Your task to perform on an android device: Add "corsair k70" to the cart on ebay.com, then select checkout. Image 0: 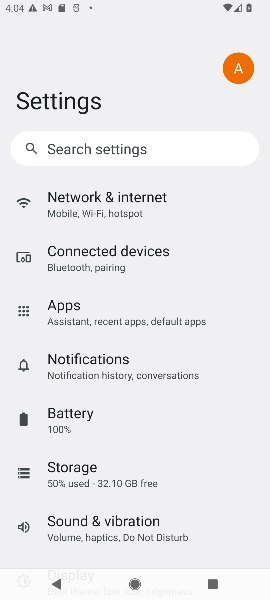
Step 0: press home button
Your task to perform on an android device: Add "corsair k70" to the cart on ebay.com, then select checkout. Image 1: 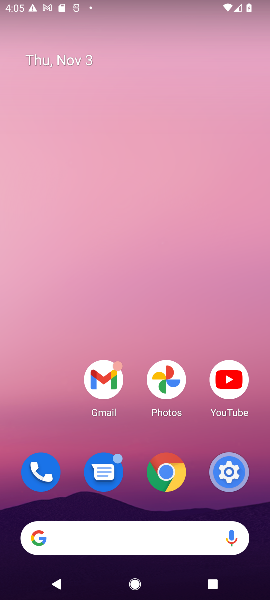
Step 1: click (102, 548)
Your task to perform on an android device: Add "corsair k70" to the cart on ebay.com, then select checkout. Image 2: 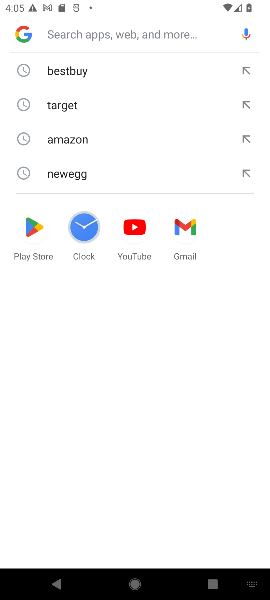
Step 2: type "ebay.com'"
Your task to perform on an android device: Add "corsair k70" to the cart on ebay.com, then select checkout. Image 3: 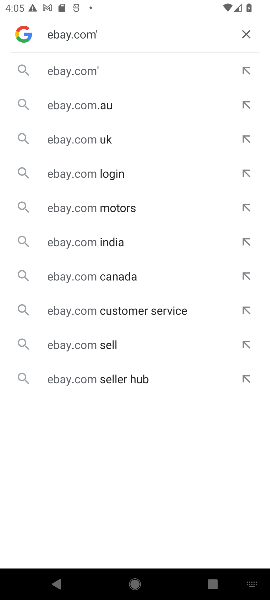
Step 3: click (89, 62)
Your task to perform on an android device: Add "corsair k70" to the cart on ebay.com, then select checkout. Image 4: 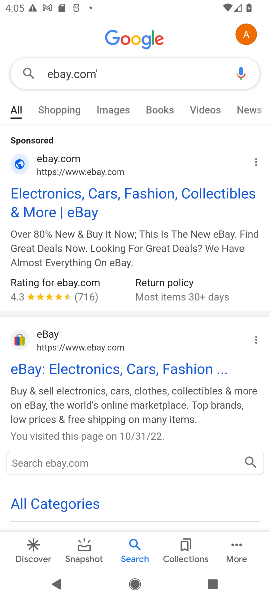
Step 4: click (114, 213)
Your task to perform on an android device: Add "corsair k70" to the cart on ebay.com, then select checkout. Image 5: 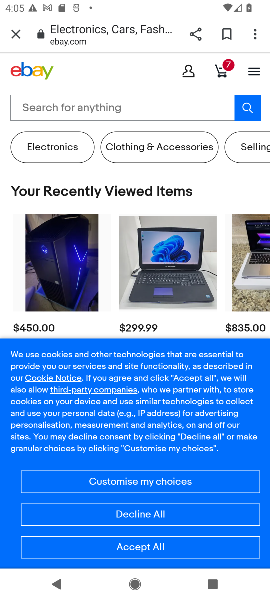
Step 5: task complete